Your task to perform on an android device: toggle data saver in the chrome app Image 0: 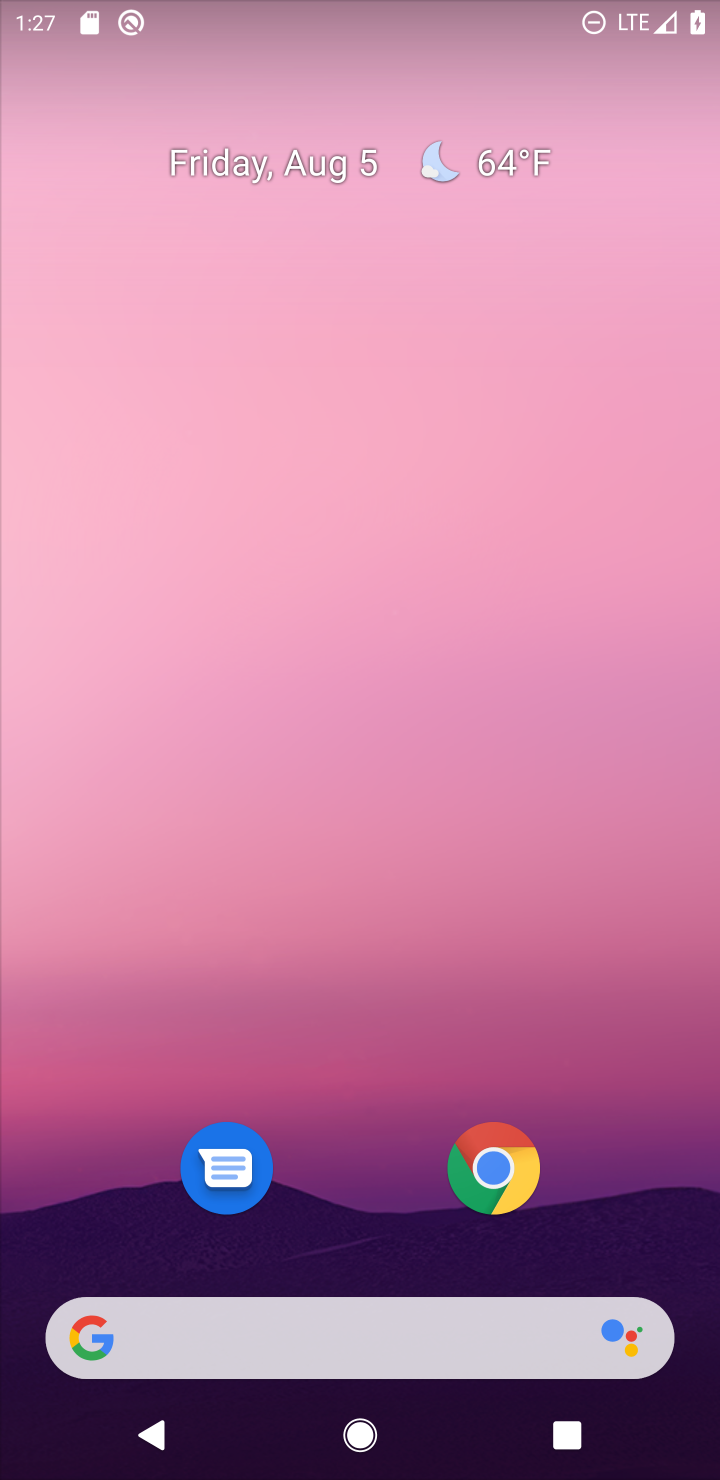
Step 0: drag from (668, 1233) to (390, 5)
Your task to perform on an android device: toggle data saver in the chrome app Image 1: 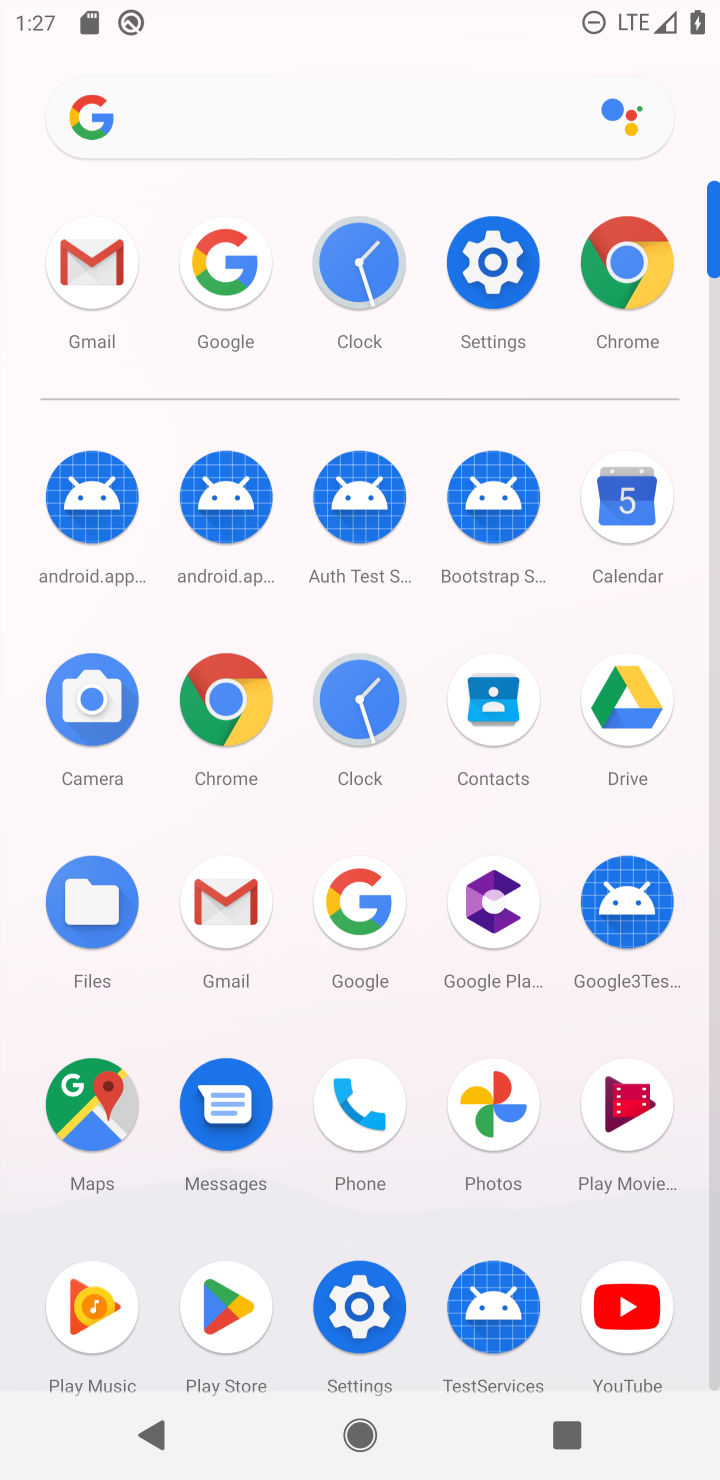
Step 1: click (222, 686)
Your task to perform on an android device: toggle data saver in the chrome app Image 2: 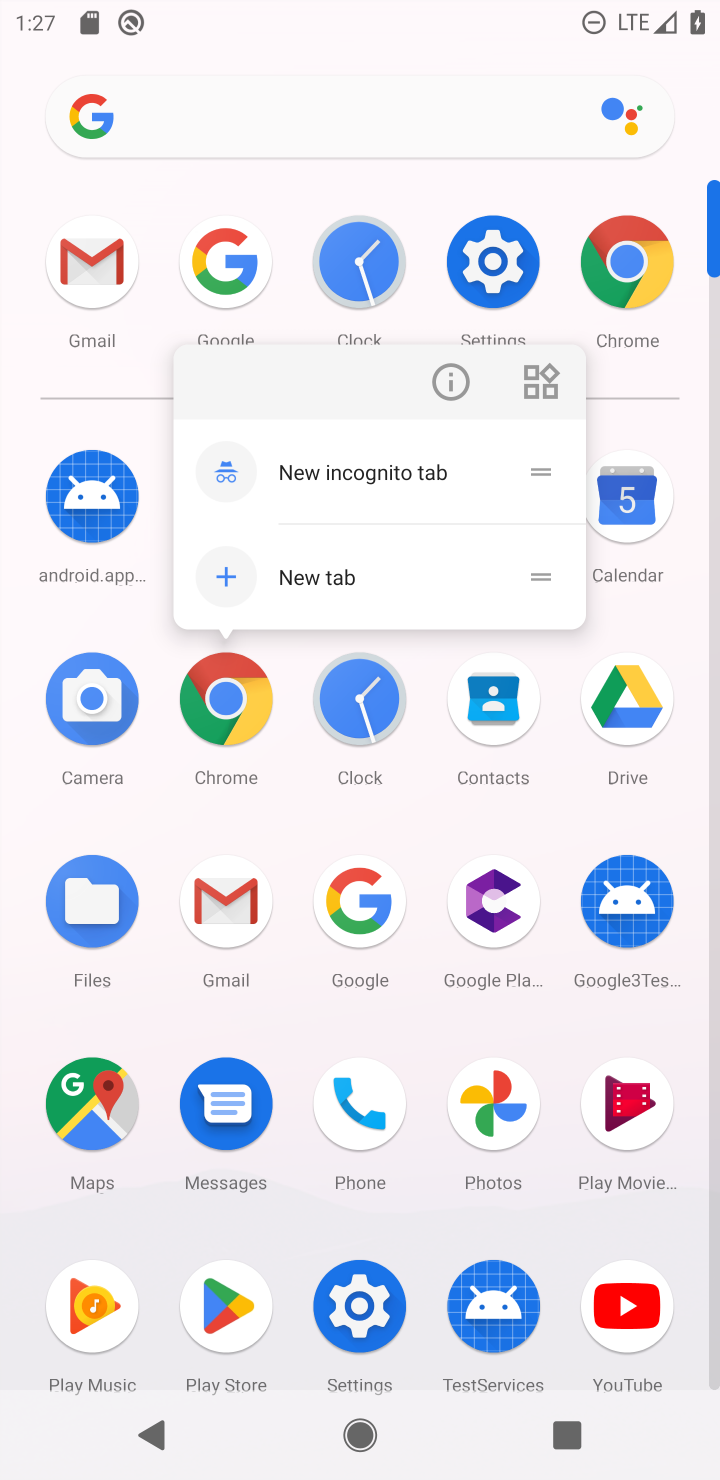
Step 2: click (221, 686)
Your task to perform on an android device: toggle data saver in the chrome app Image 3: 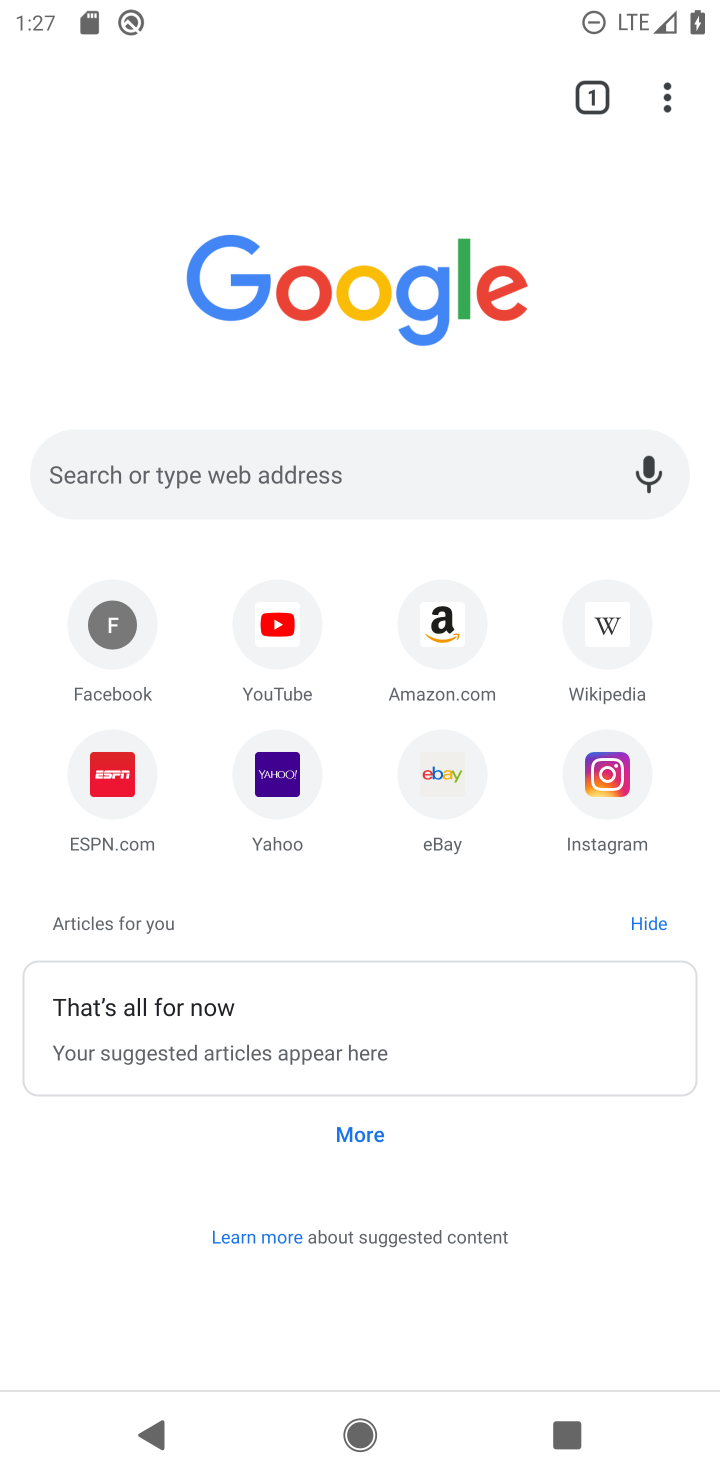
Step 3: click (673, 96)
Your task to perform on an android device: toggle data saver in the chrome app Image 4: 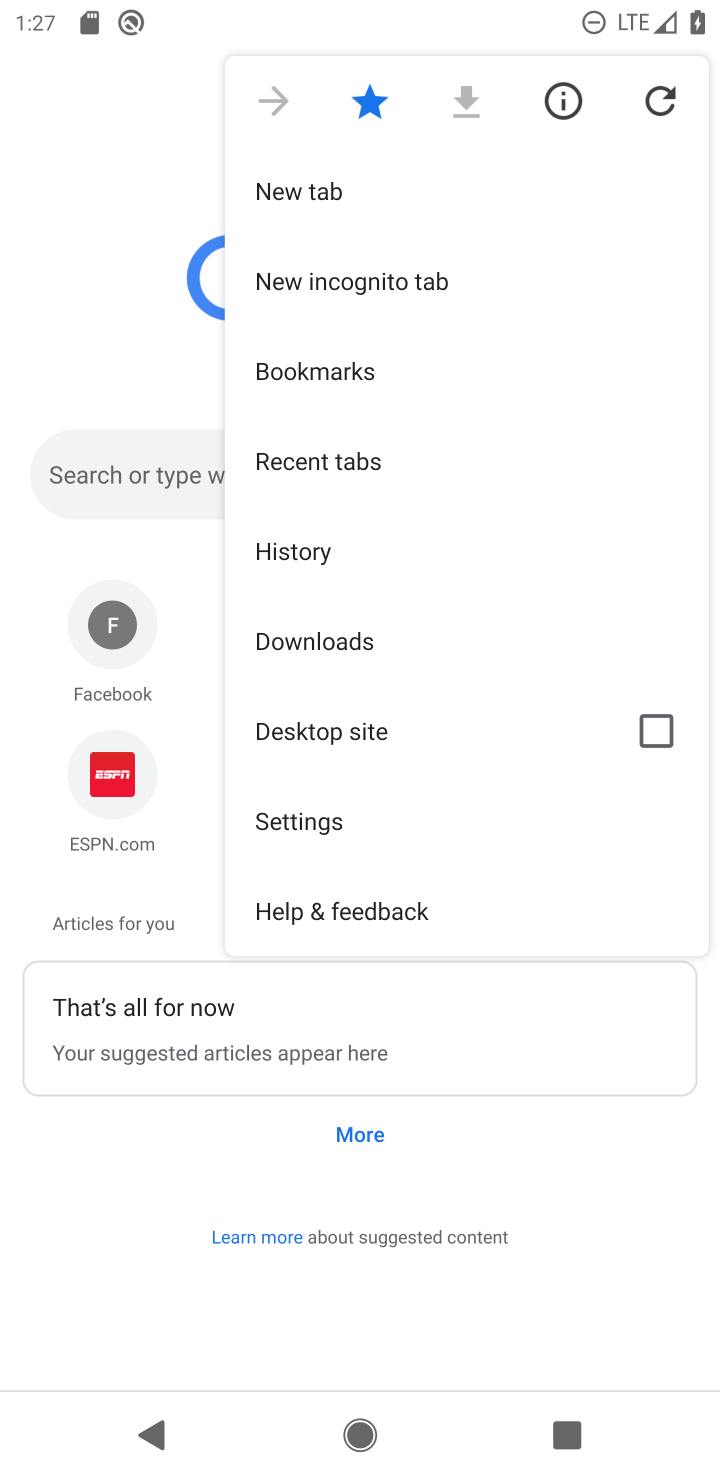
Step 4: click (346, 827)
Your task to perform on an android device: toggle data saver in the chrome app Image 5: 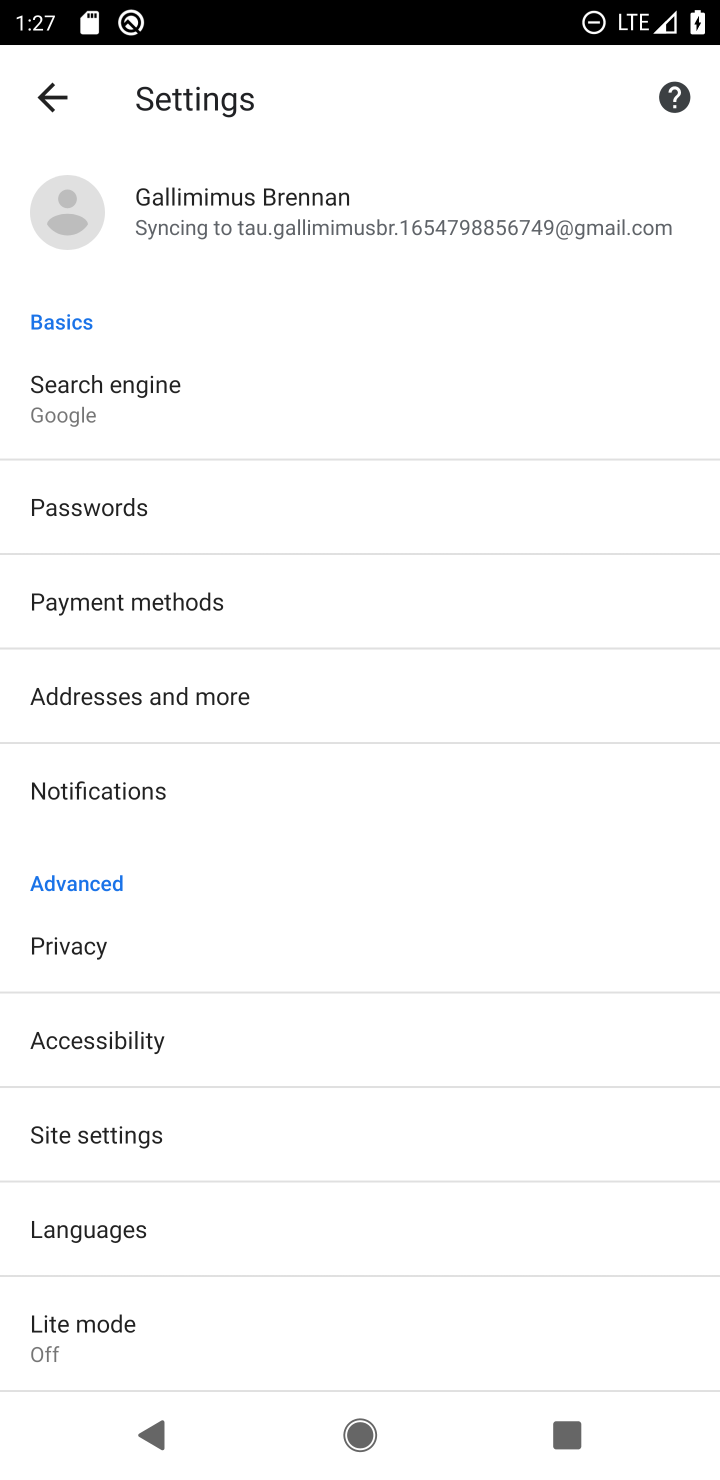
Step 5: click (220, 1317)
Your task to perform on an android device: toggle data saver in the chrome app Image 6: 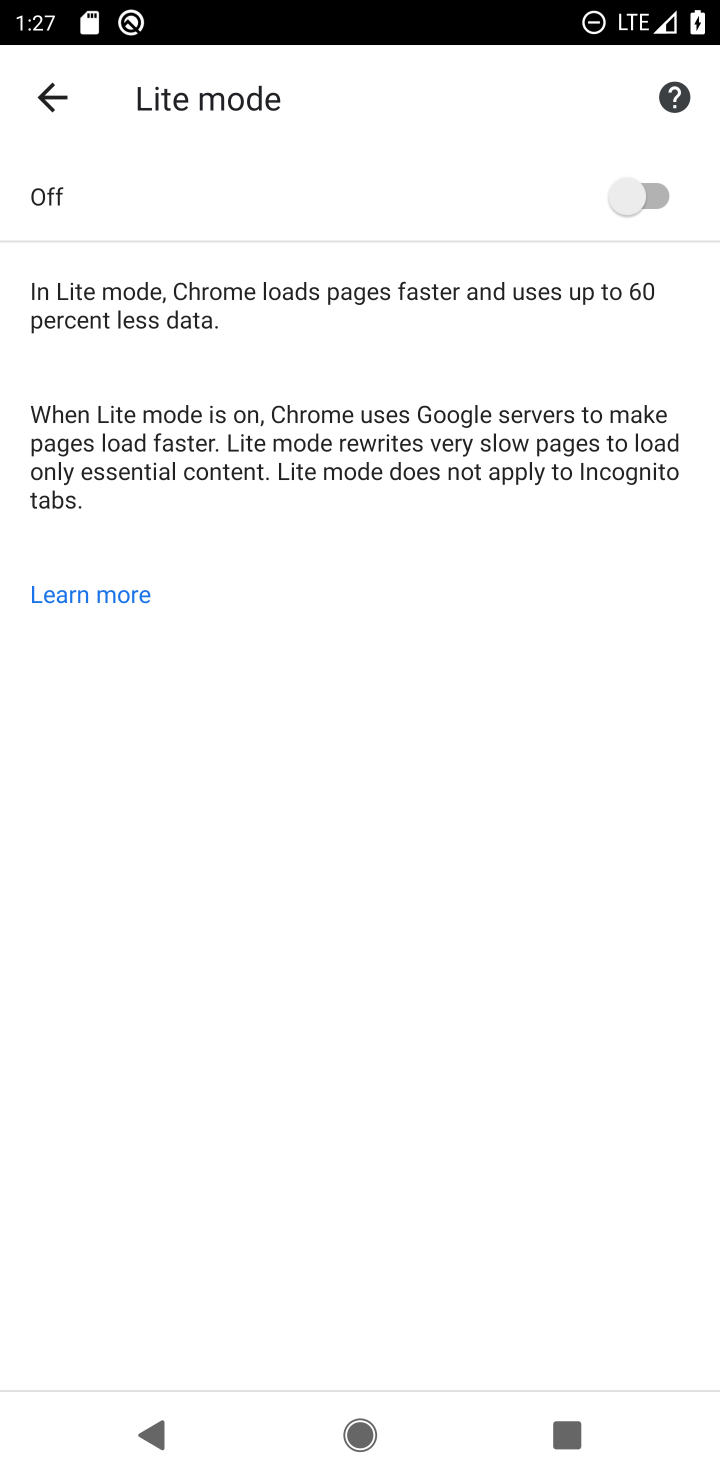
Step 6: click (635, 204)
Your task to perform on an android device: toggle data saver in the chrome app Image 7: 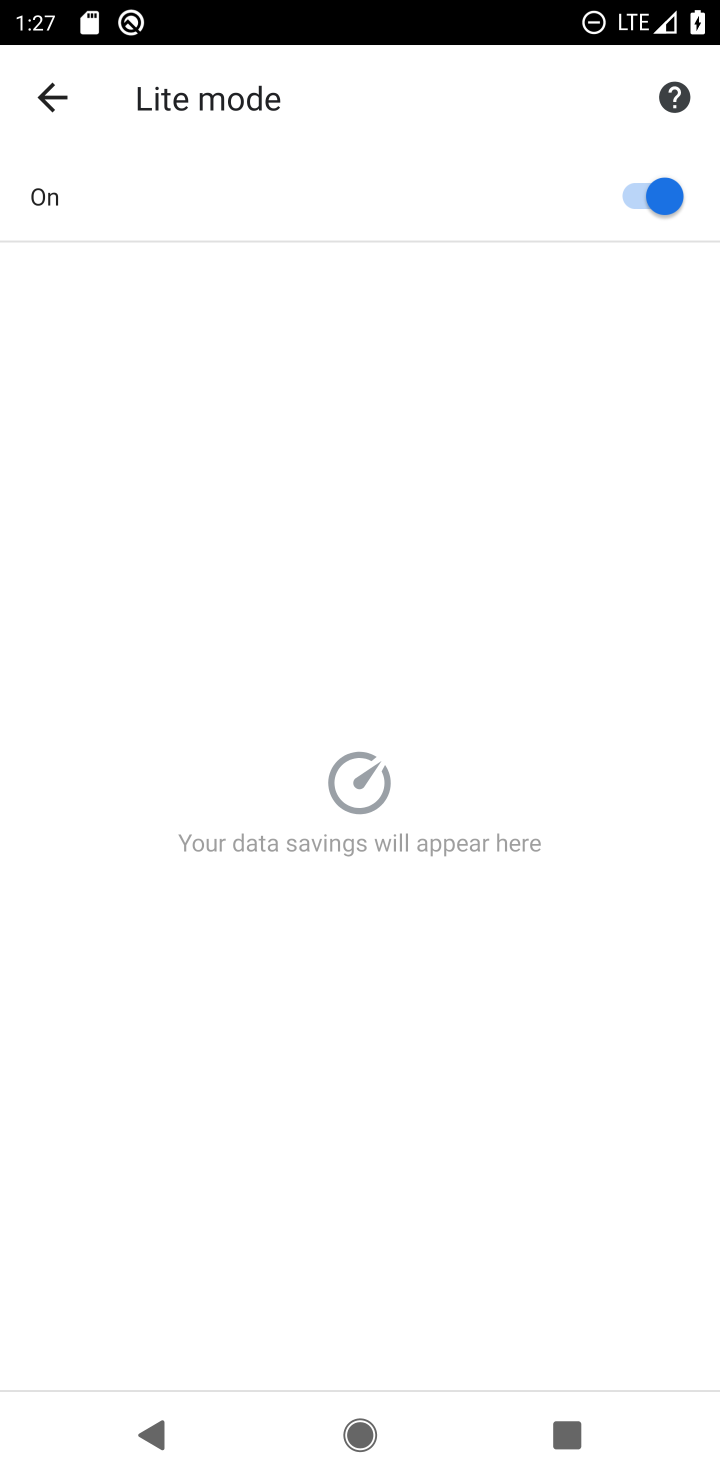
Step 7: task complete